Your task to perform on an android device: see tabs open on other devices in the chrome app Image 0: 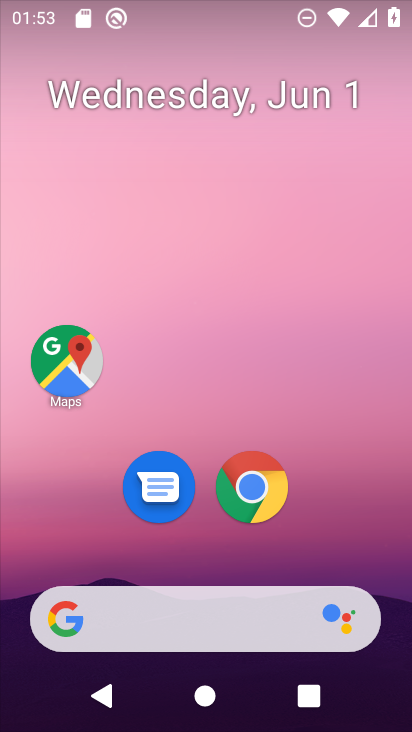
Step 0: drag from (320, 545) to (279, 194)
Your task to perform on an android device: see tabs open on other devices in the chrome app Image 1: 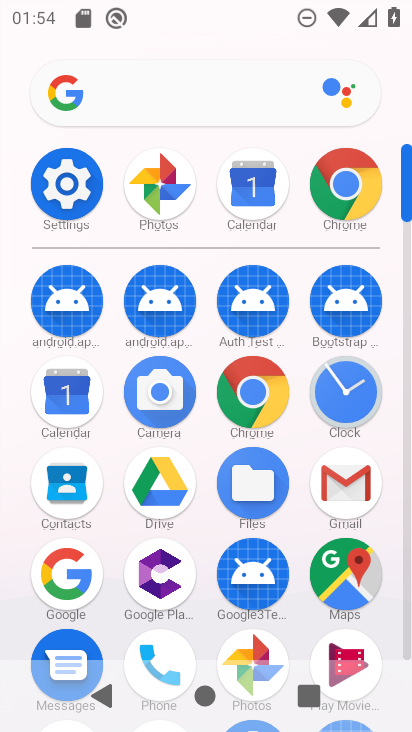
Step 1: click (244, 377)
Your task to perform on an android device: see tabs open on other devices in the chrome app Image 2: 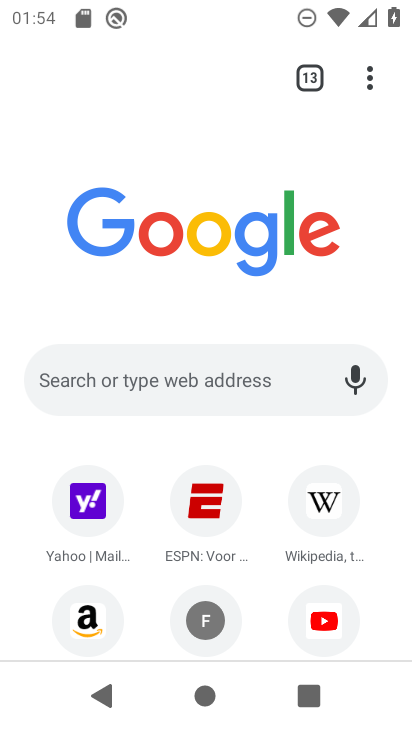
Step 2: click (376, 76)
Your task to perform on an android device: see tabs open on other devices in the chrome app Image 3: 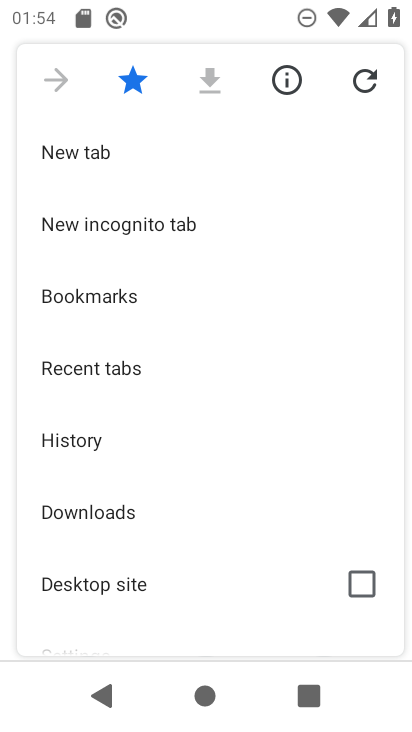
Step 3: click (106, 436)
Your task to perform on an android device: see tabs open on other devices in the chrome app Image 4: 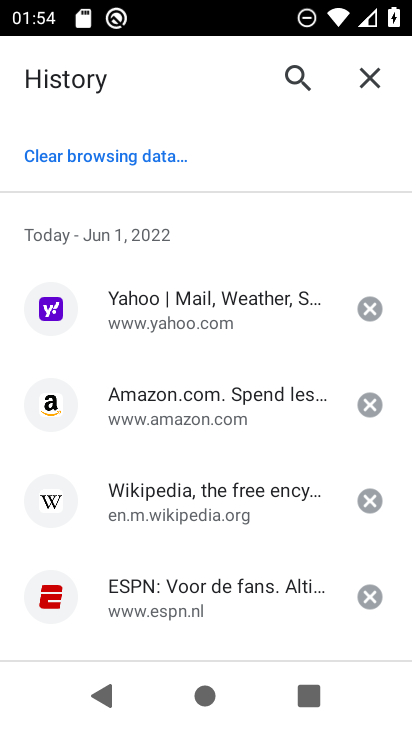
Step 4: task complete